Your task to perform on an android device: Search for Italian restaurants on Maps Image 0: 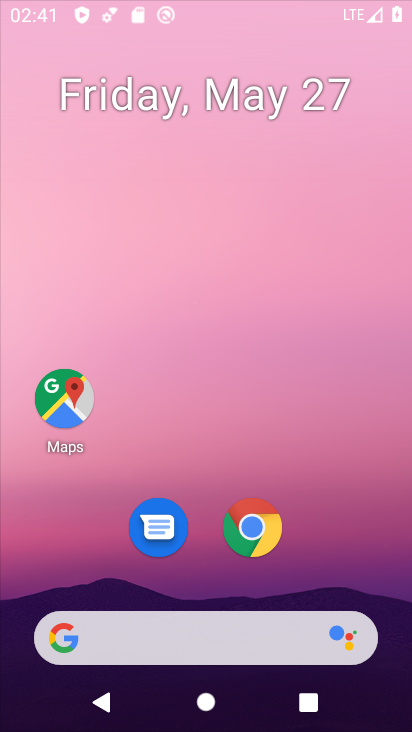
Step 0: click (277, 72)
Your task to perform on an android device: Search for Italian restaurants on Maps Image 1: 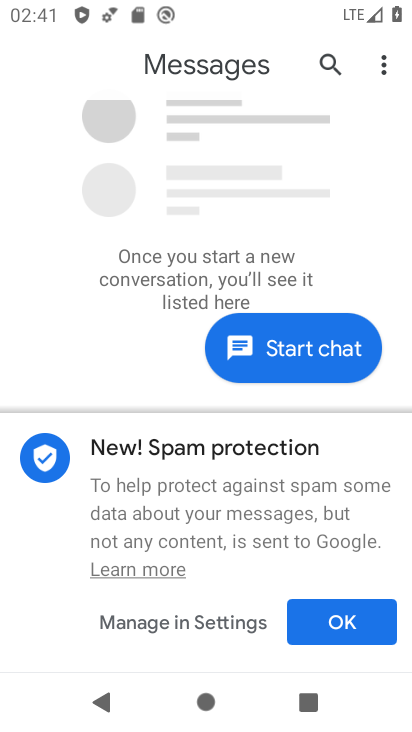
Step 1: press home button
Your task to perform on an android device: Search for Italian restaurants on Maps Image 2: 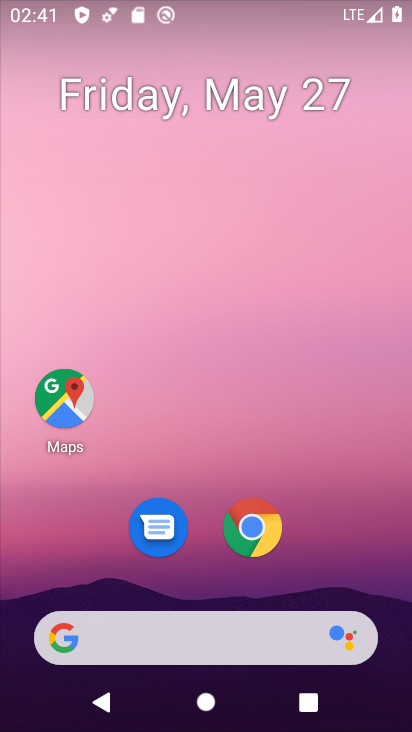
Step 2: click (49, 402)
Your task to perform on an android device: Search for Italian restaurants on Maps Image 3: 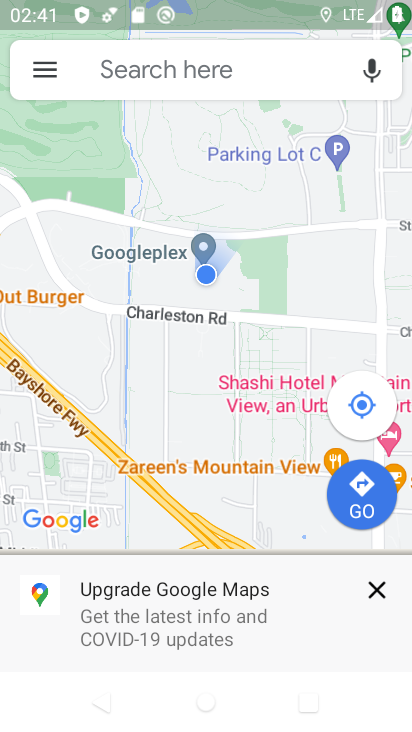
Step 3: click (221, 67)
Your task to perform on an android device: Search for Italian restaurants on Maps Image 4: 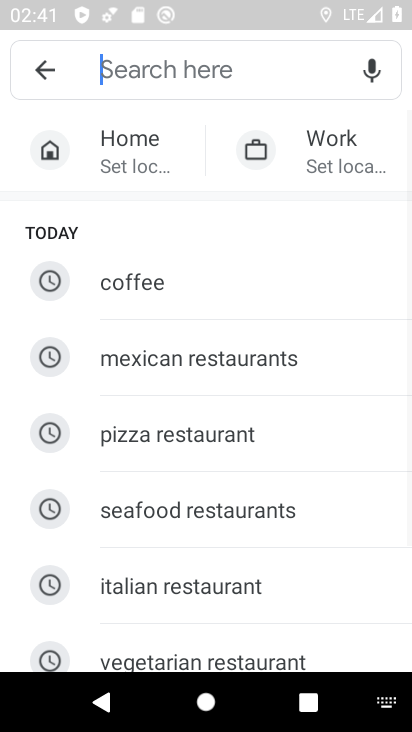
Step 4: click (167, 592)
Your task to perform on an android device: Search for Italian restaurants on Maps Image 5: 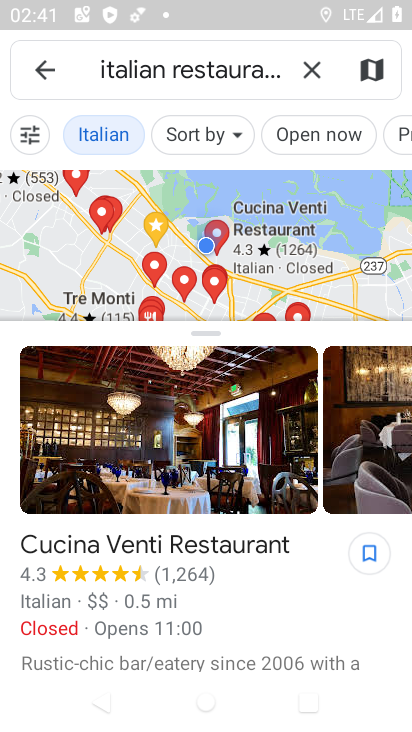
Step 5: task complete